Your task to perform on an android device: toggle show notifications on the lock screen Image 0: 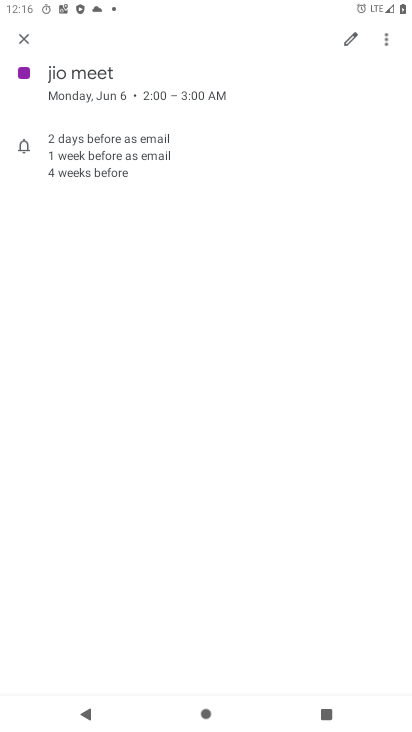
Step 0: press home button
Your task to perform on an android device: toggle show notifications on the lock screen Image 1: 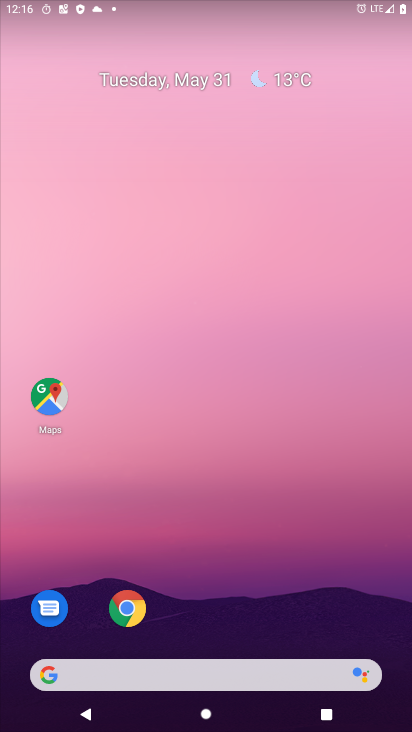
Step 1: drag from (232, 633) to (272, 8)
Your task to perform on an android device: toggle show notifications on the lock screen Image 2: 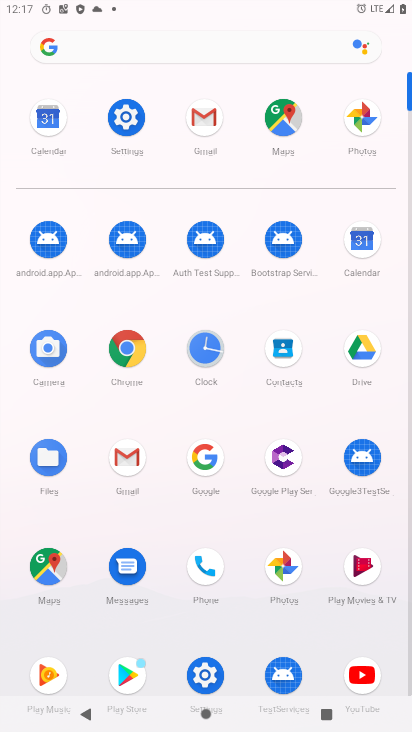
Step 2: click (122, 124)
Your task to perform on an android device: toggle show notifications on the lock screen Image 3: 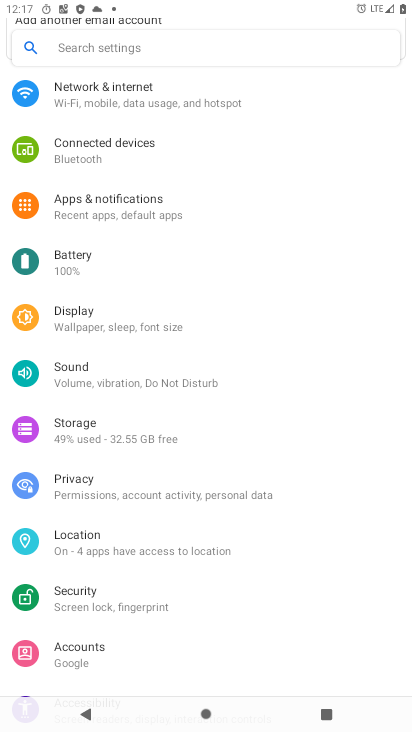
Step 3: click (109, 207)
Your task to perform on an android device: toggle show notifications on the lock screen Image 4: 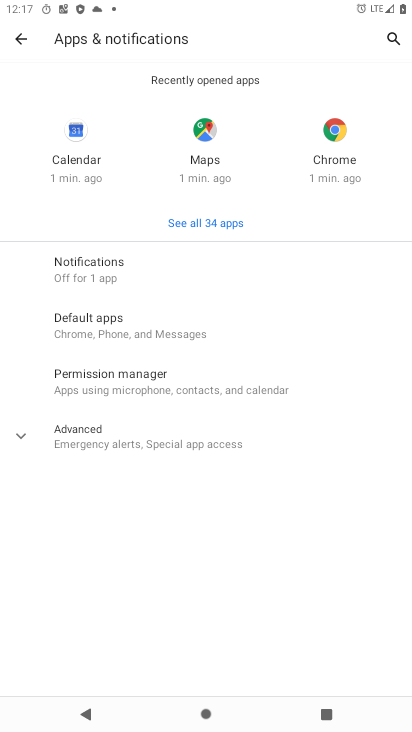
Step 4: click (82, 275)
Your task to perform on an android device: toggle show notifications on the lock screen Image 5: 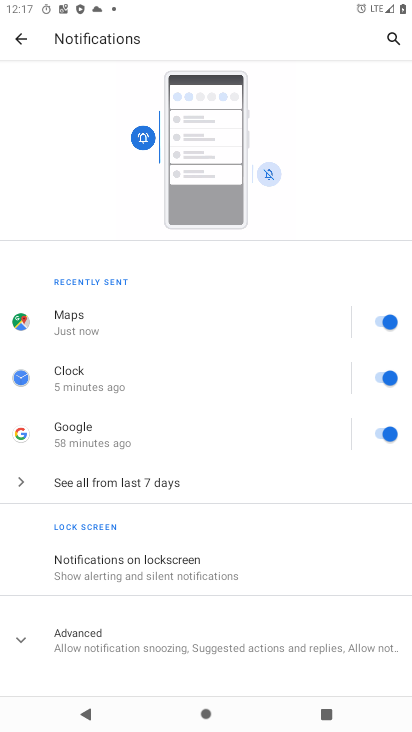
Step 5: click (94, 569)
Your task to perform on an android device: toggle show notifications on the lock screen Image 6: 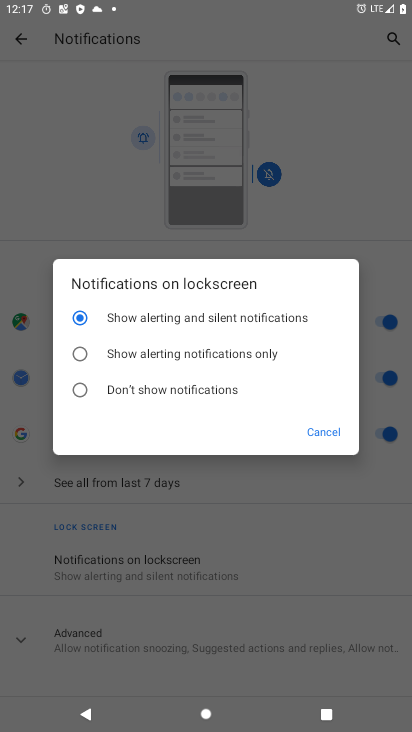
Step 6: click (81, 395)
Your task to perform on an android device: toggle show notifications on the lock screen Image 7: 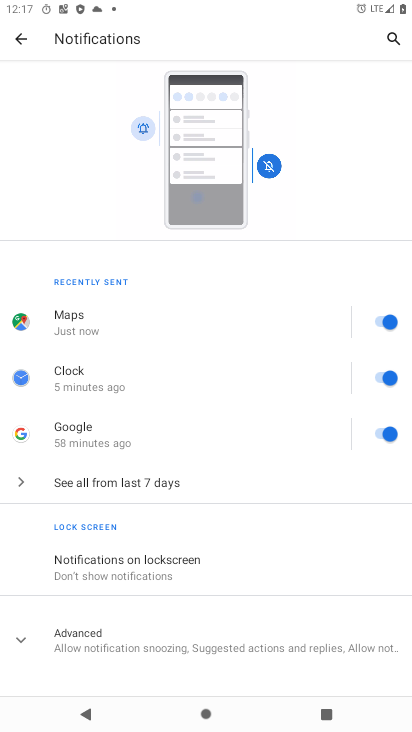
Step 7: task complete